Your task to perform on an android device: turn on the 24-hour format for clock Image 0: 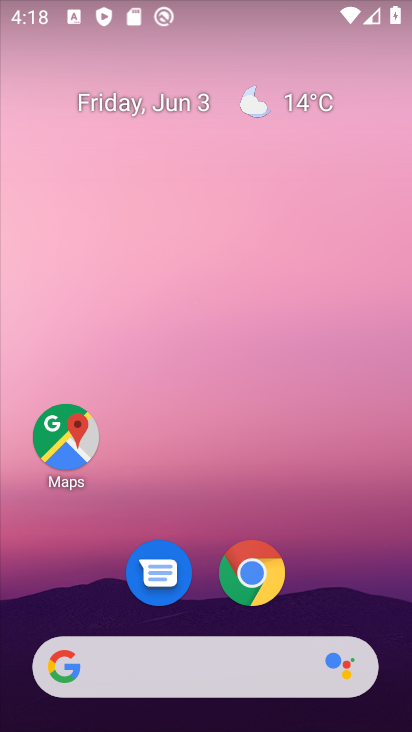
Step 0: drag from (271, 664) to (277, 118)
Your task to perform on an android device: turn on the 24-hour format for clock Image 1: 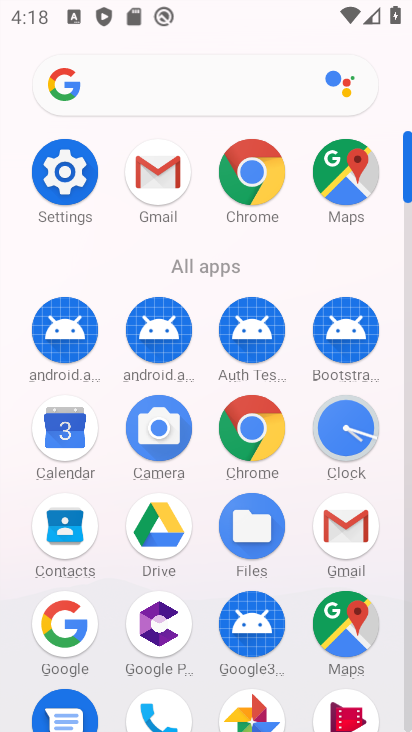
Step 1: click (344, 422)
Your task to perform on an android device: turn on the 24-hour format for clock Image 2: 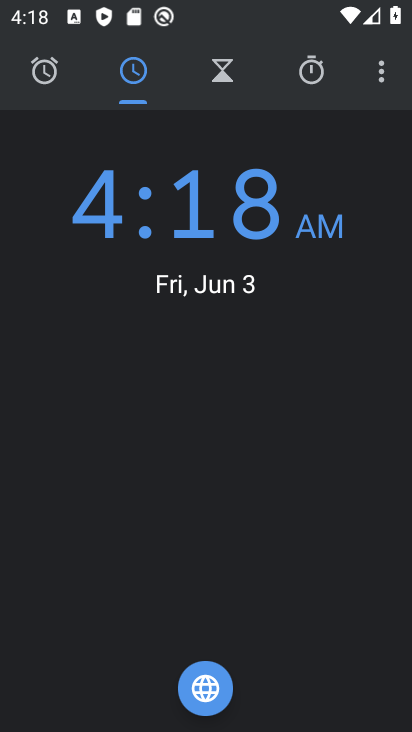
Step 2: click (385, 72)
Your task to perform on an android device: turn on the 24-hour format for clock Image 3: 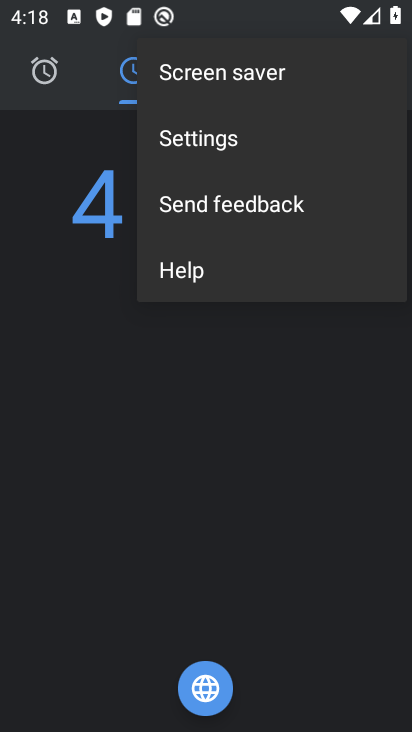
Step 3: click (225, 129)
Your task to perform on an android device: turn on the 24-hour format for clock Image 4: 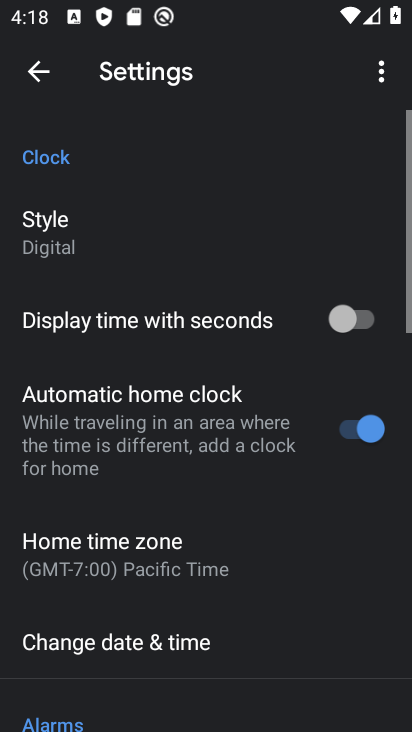
Step 4: click (220, 641)
Your task to perform on an android device: turn on the 24-hour format for clock Image 5: 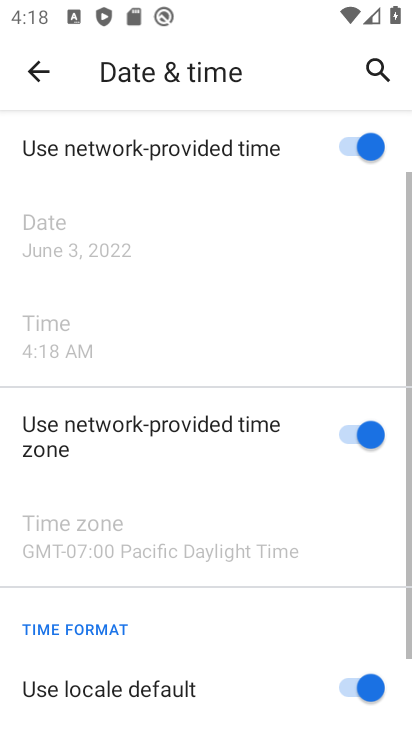
Step 5: drag from (239, 458) to (270, 151)
Your task to perform on an android device: turn on the 24-hour format for clock Image 6: 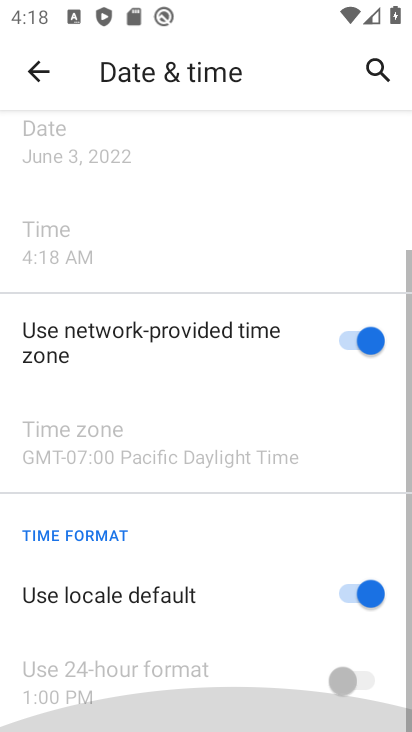
Step 6: drag from (251, 672) to (245, 204)
Your task to perform on an android device: turn on the 24-hour format for clock Image 7: 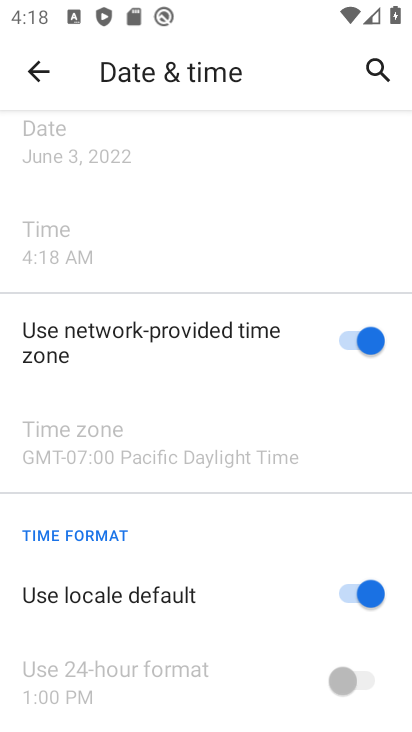
Step 7: click (358, 601)
Your task to perform on an android device: turn on the 24-hour format for clock Image 8: 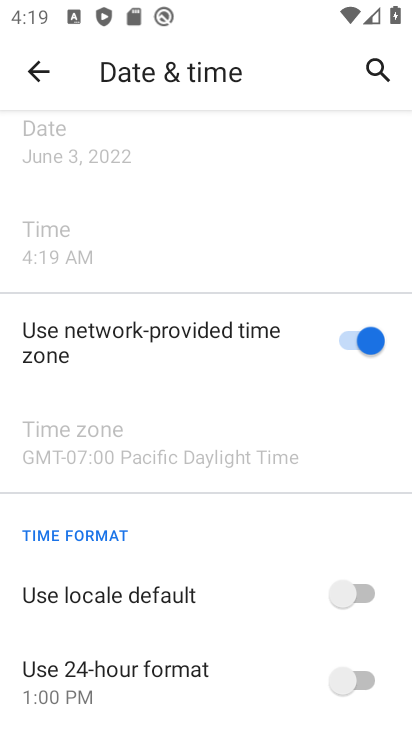
Step 8: drag from (308, 702) to (285, 428)
Your task to perform on an android device: turn on the 24-hour format for clock Image 9: 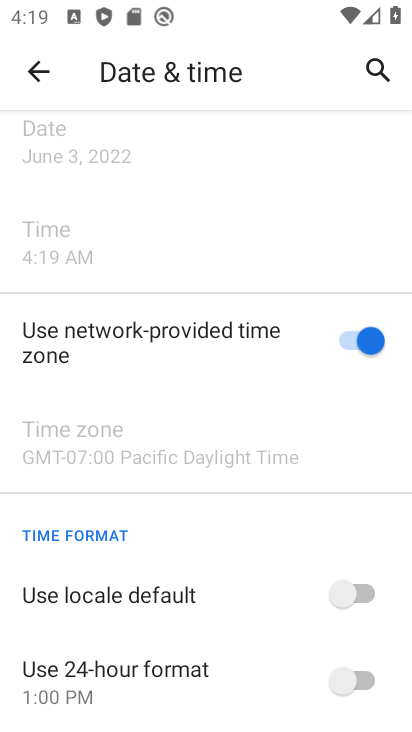
Step 9: click (259, 526)
Your task to perform on an android device: turn on the 24-hour format for clock Image 10: 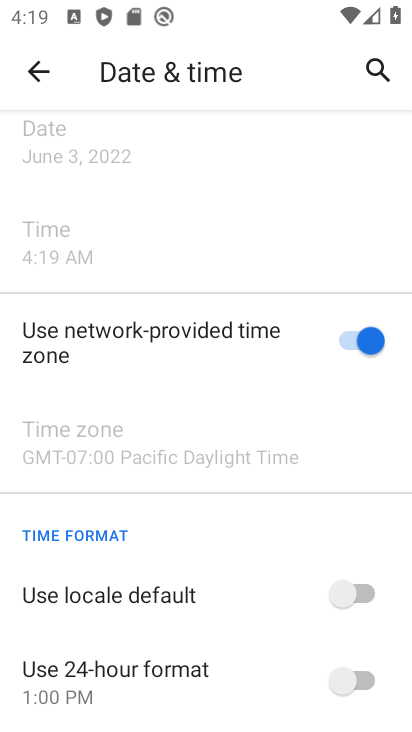
Step 10: click (363, 686)
Your task to perform on an android device: turn on the 24-hour format for clock Image 11: 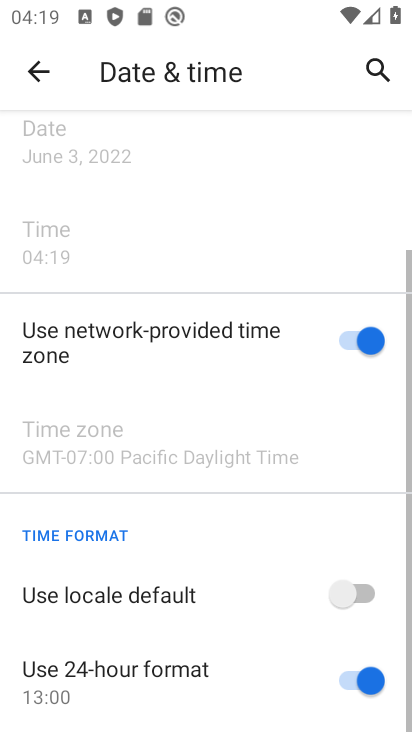
Step 11: task complete